Your task to perform on an android device: search for starred emails in the gmail app Image 0: 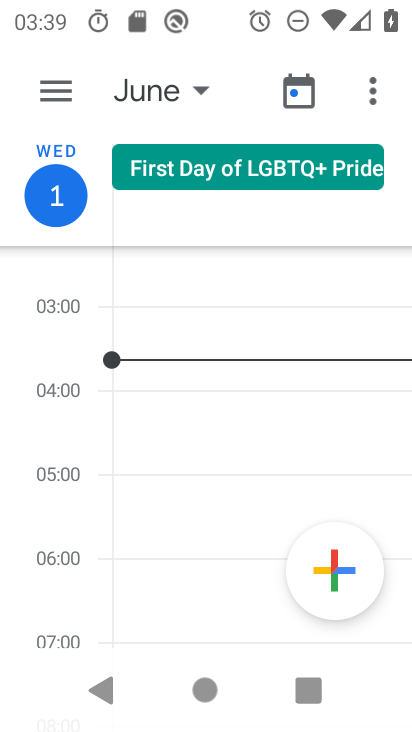
Step 0: press home button
Your task to perform on an android device: search for starred emails in the gmail app Image 1: 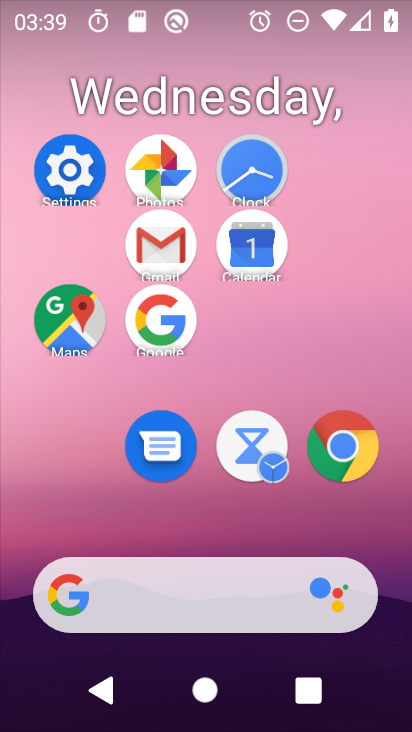
Step 1: click (163, 252)
Your task to perform on an android device: search for starred emails in the gmail app Image 2: 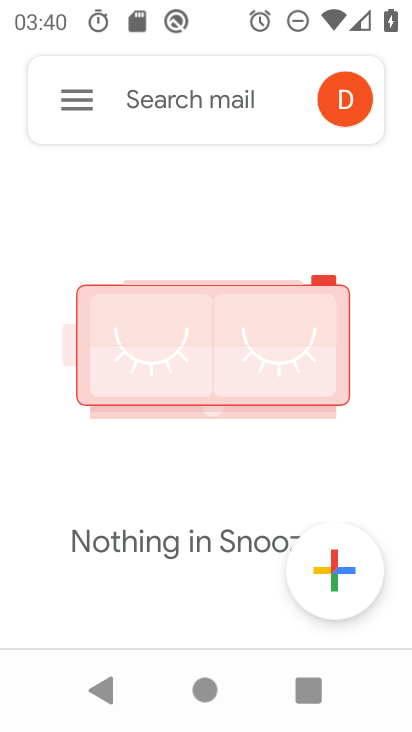
Step 2: click (58, 95)
Your task to perform on an android device: search for starred emails in the gmail app Image 3: 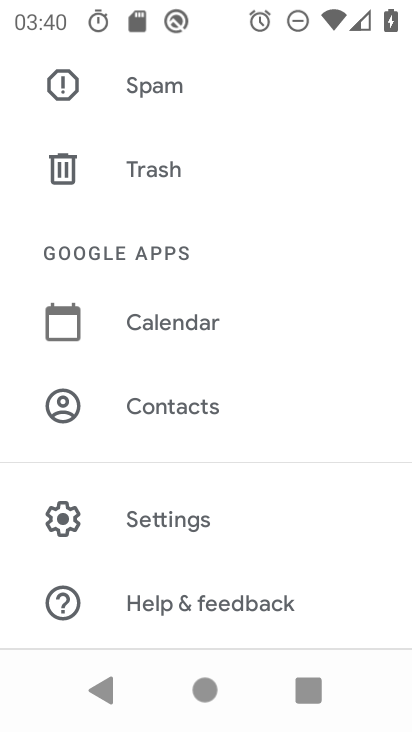
Step 3: drag from (227, 176) to (281, 529)
Your task to perform on an android device: search for starred emails in the gmail app Image 4: 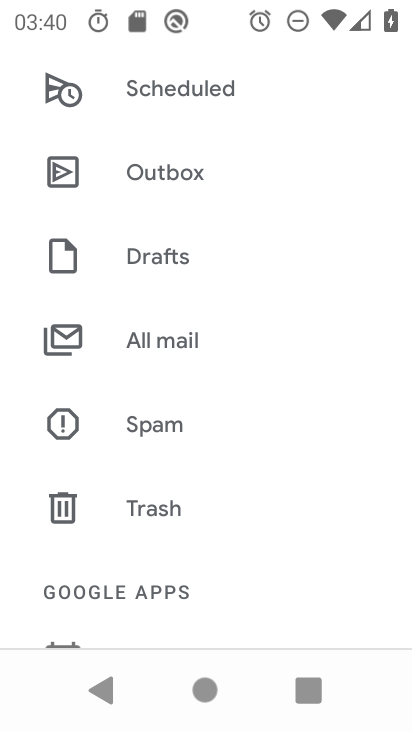
Step 4: drag from (274, 137) to (310, 650)
Your task to perform on an android device: search for starred emails in the gmail app Image 5: 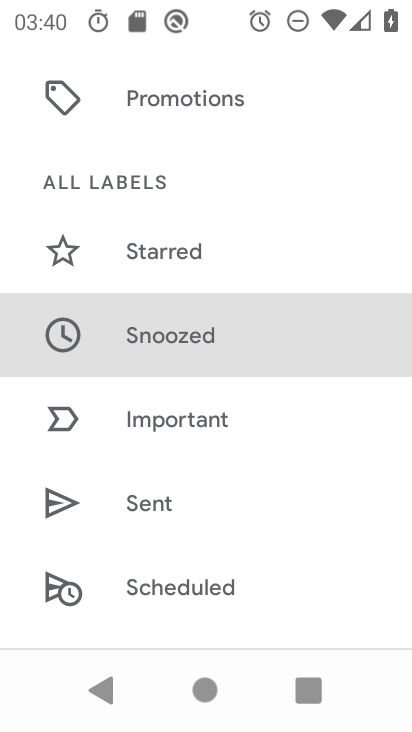
Step 5: click (203, 262)
Your task to perform on an android device: search for starred emails in the gmail app Image 6: 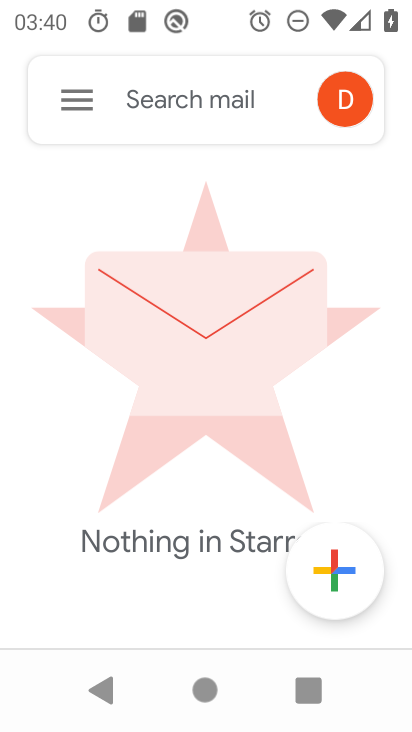
Step 6: task complete